Your task to perform on an android device: set the stopwatch Image 0: 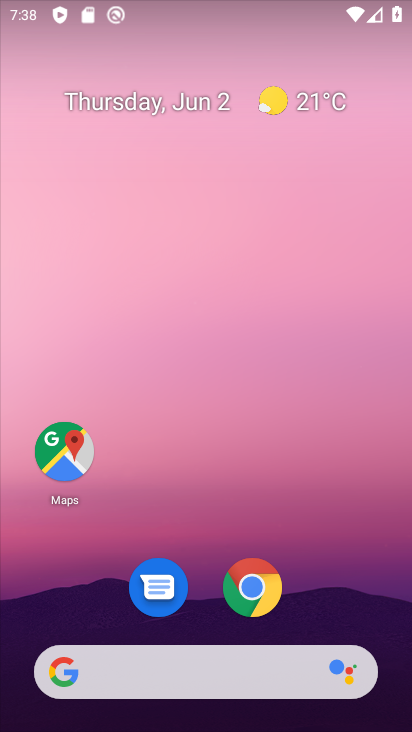
Step 0: drag from (377, 654) to (315, 30)
Your task to perform on an android device: set the stopwatch Image 1: 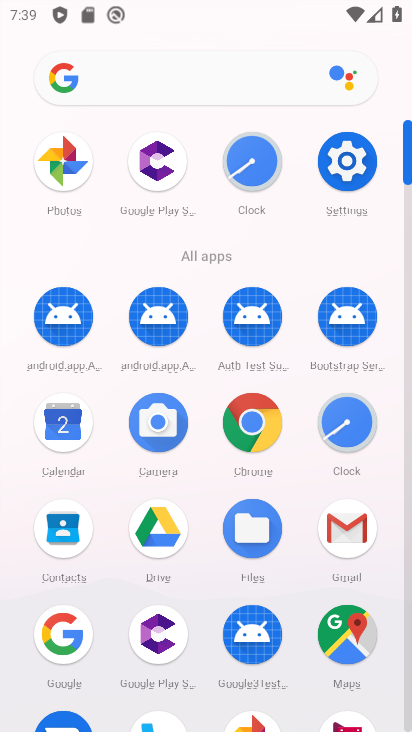
Step 1: click (243, 162)
Your task to perform on an android device: set the stopwatch Image 2: 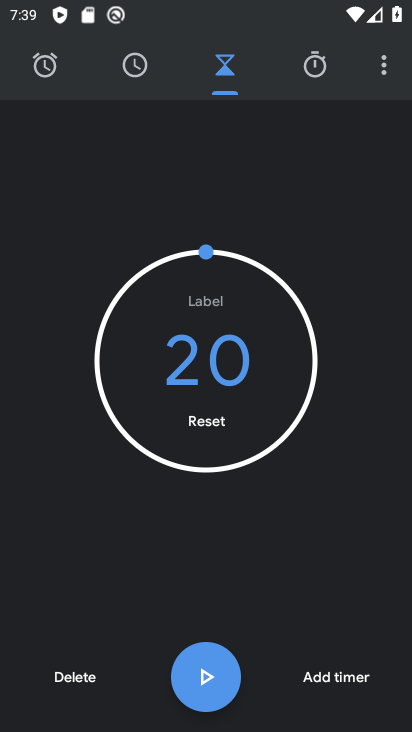
Step 2: click (314, 69)
Your task to perform on an android device: set the stopwatch Image 3: 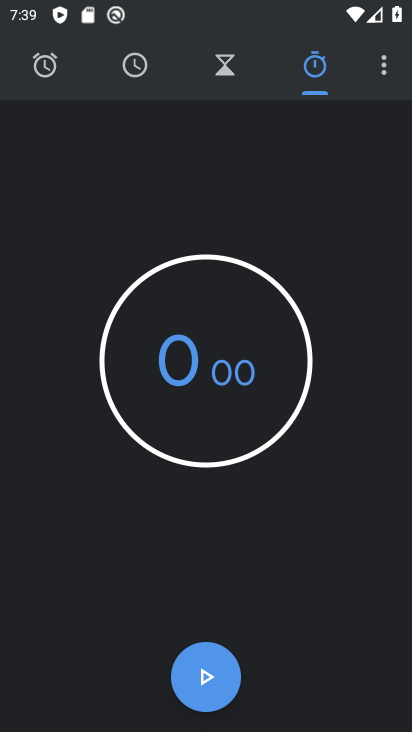
Step 3: click (212, 678)
Your task to perform on an android device: set the stopwatch Image 4: 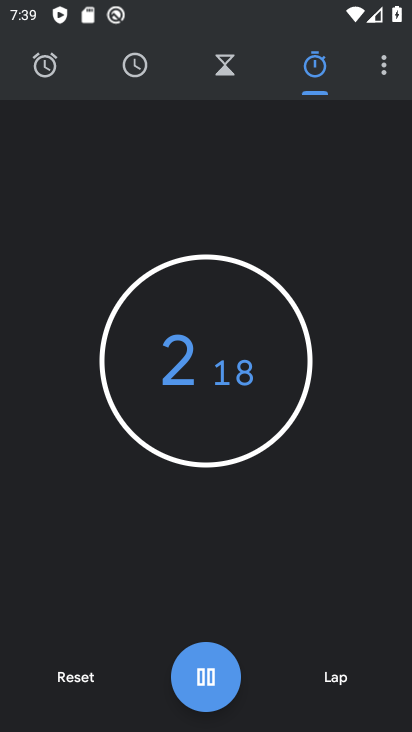
Step 4: click (207, 681)
Your task to perform on an android device: set the stopwatch Image 5: 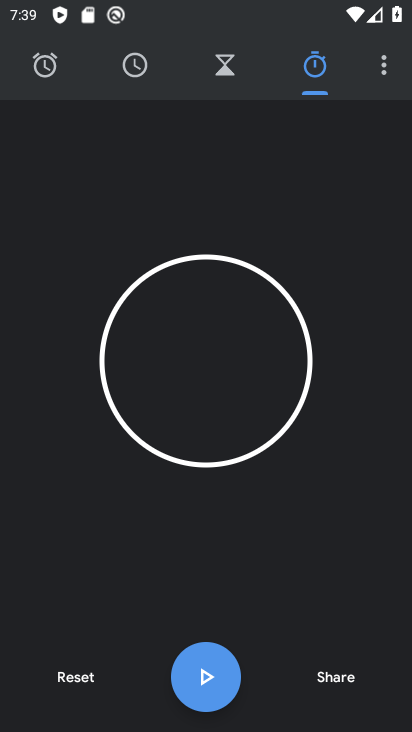
Step 5: task complete